Your task to perform on an android device: change the clock display to digital Image 0: 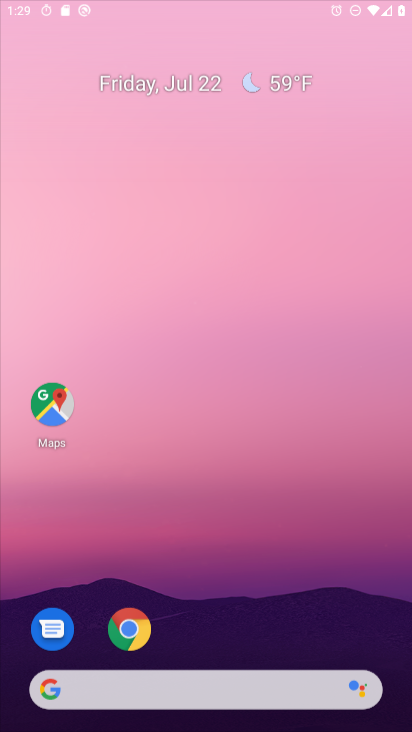
Step 0: press home button
Your task to perform on an android device: change the clock display to digital Image 1: 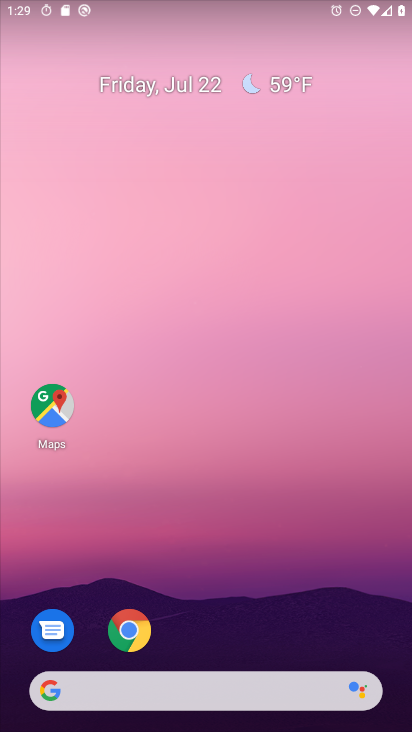
Step 1: drag from (226, 603) to (263, 165)
Your task to perform on an android device: change the clock display to digital Image 2: 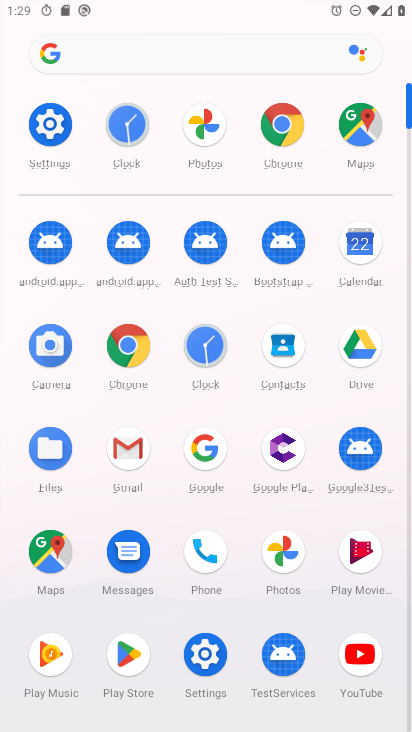
Step 2: click (130, 129)
Your task to perform on an android device: change the clock display to digital Image 3: 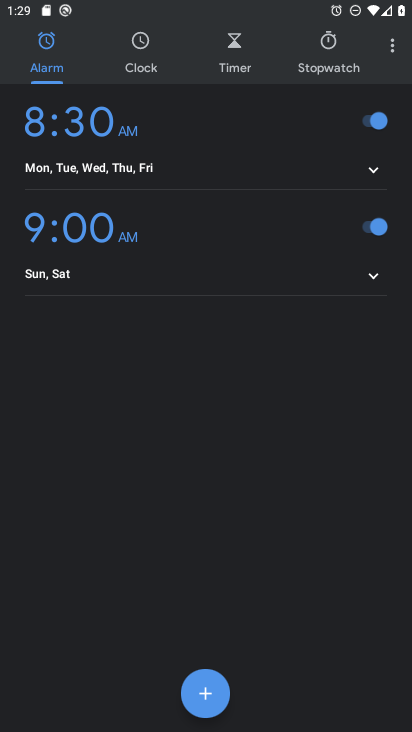
Step 3: click (390, 52)
Your task to perform on an android device: change the clock display to digital Image 4: 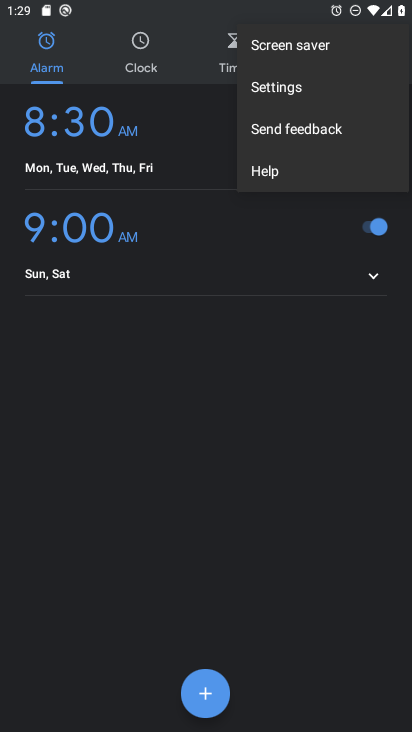
Step 4: click (284, 97)
Your task to perform on an android device: change the clock display to digital Image 5: 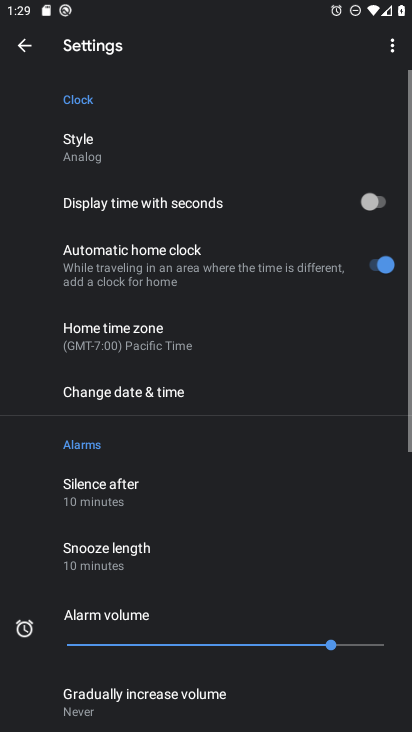
Step 5: click (82, 144)
Your task to perform on an android device: change the clock display to digital Image 6: 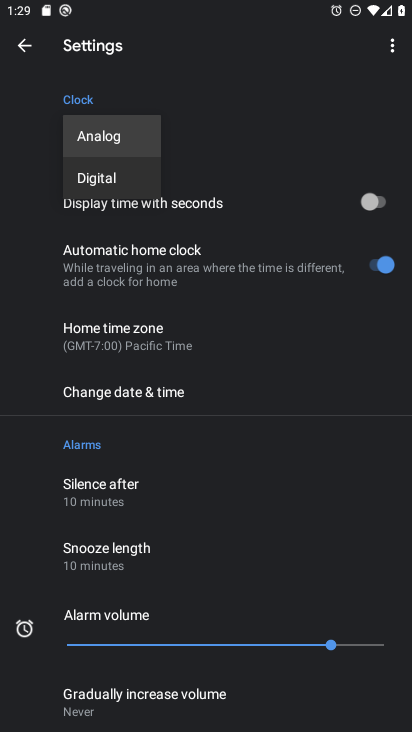
Step 6: click (105, 187)
Your task to perform on an android device: change the clock display to digital Image 7: 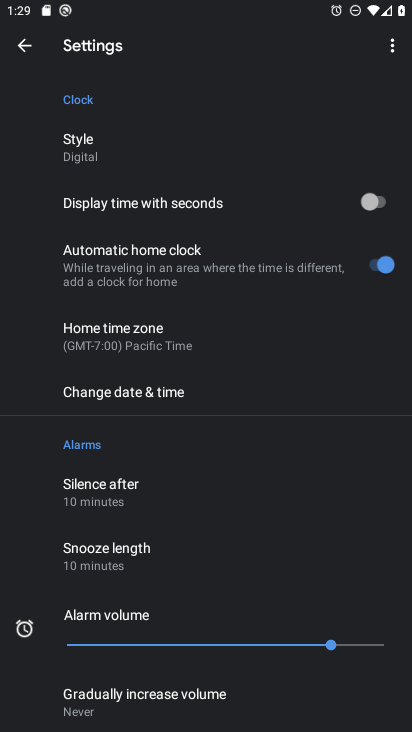
Step 7: task complete